Your task to perform on an android device: Open notification settings Image 0: 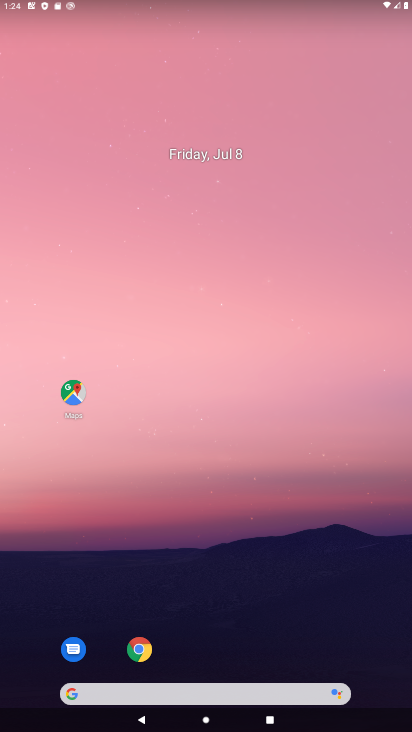
Step 0: drag from (8, 711) to (381, 602)
Your task to perform on an android device: Open notification settings Image 1: 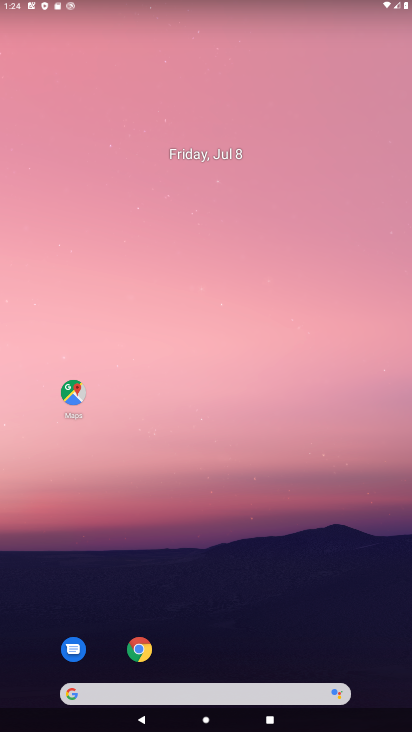
Step 1: drag from (21, 686) to (261, 139)
Your task to perform on an android device: Open notification settings Image 2: 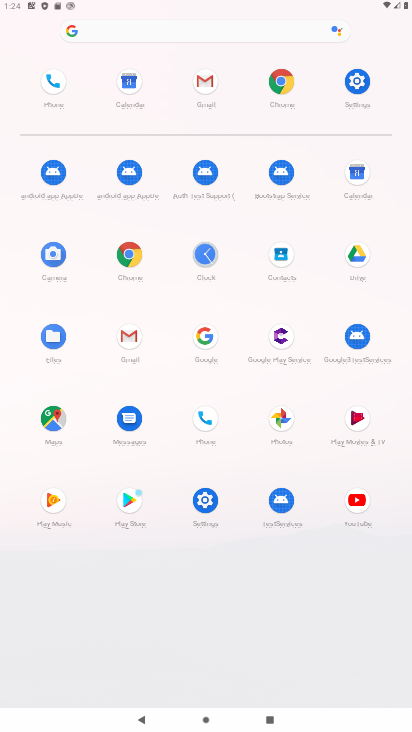
Step 2: click (205, 502)
Your task to perform on an android device: Open notification settings Image 3: 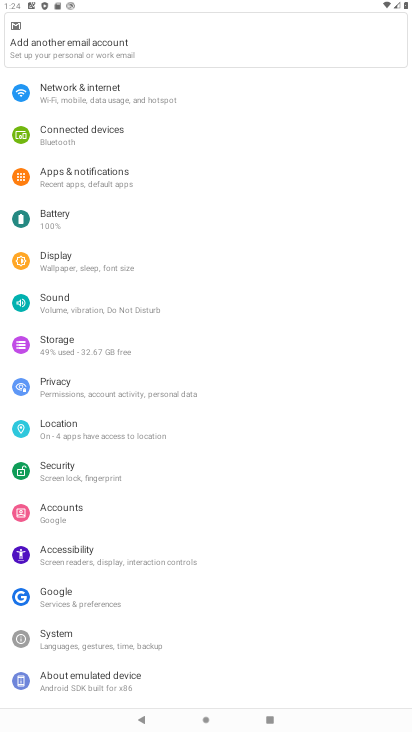
Step 3: click (93, 182)
Your task to perform on an android device: Open notification settings Image 4: 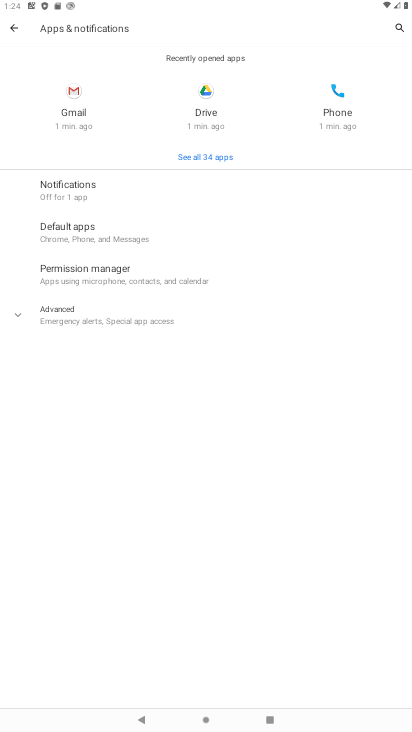
Step 4: task complete